Your task to perform on an android device: Set the phone to "Do not disturb". Image 0: 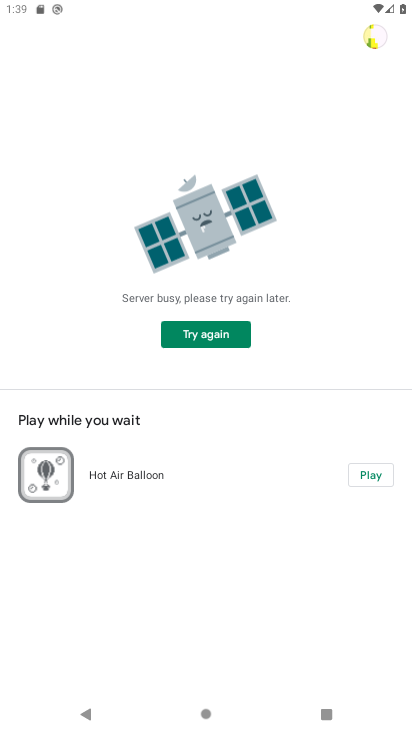
Step 0: press home button
Your task to perform on an android device: Set the phone to "Do not disturb". Image 1: 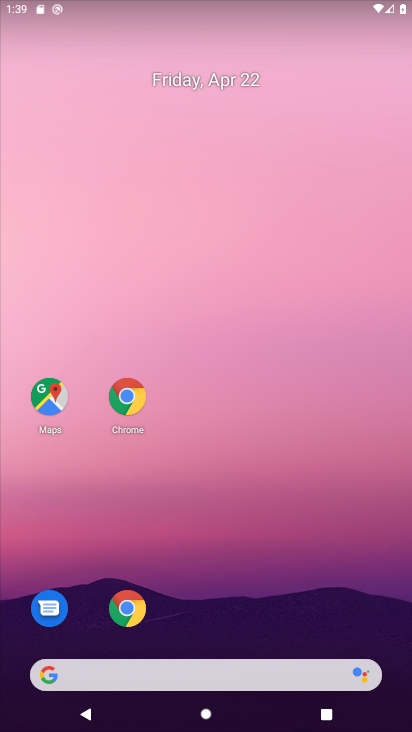
Step 1: drag from (136, 110) to (110, 0)
Your task to perform on an android device: Set the phone to "Do not disturb". Image 2: 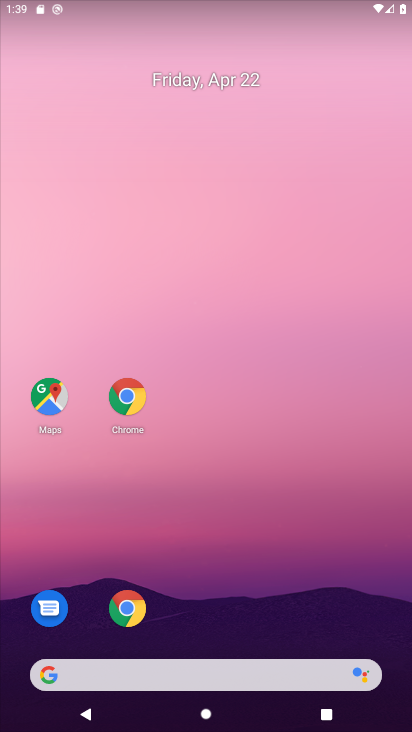
Step 2: drag from (283, 677) to (185, 20)
Your task to perform on an android device: Set the phone to "Do not disturb". Image 3: 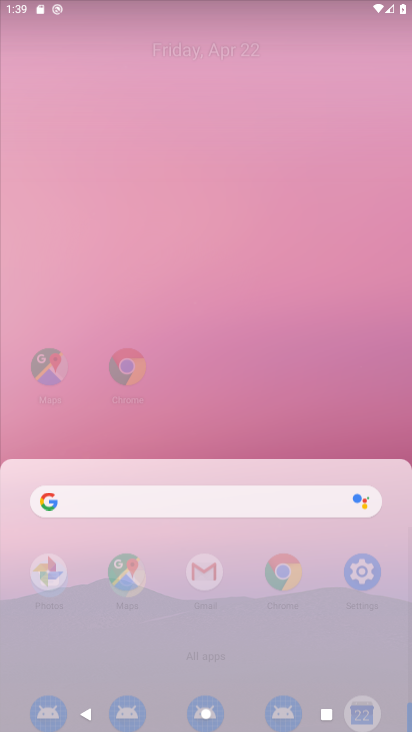
Step 3: drag from (241, 572) to (266, 225)
Your task to perform on an android device: Set the phone to "Do not disturb". Image 4: 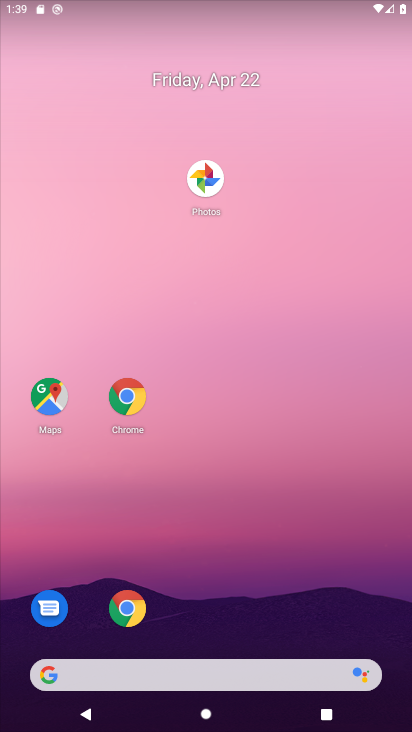
Step 4: drag from (279, 601) to (175, 177)
Your task to perform on an android device: Set the phone to "Do not disturb". Image 5: 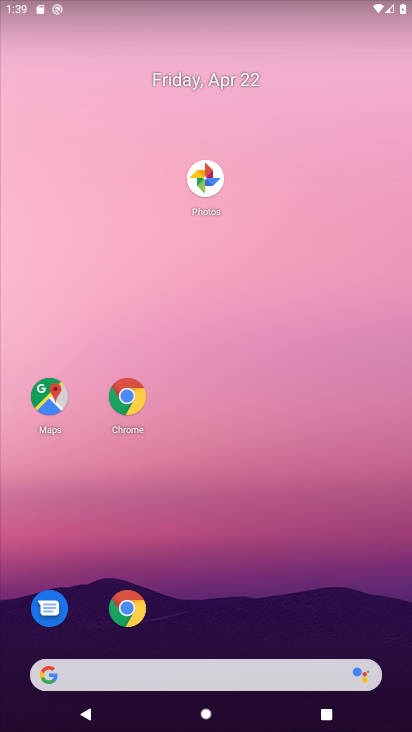
Step 5: drag from (243, 580) to (123, 203)
Your task to perform on an android device: Set the phone to "Do not disturb". Image 6: 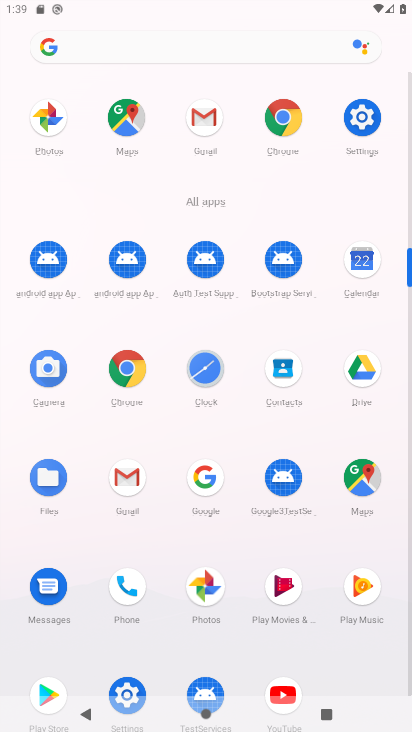
Step 6: drag from (235, 477) to (127, 100)
Your task to perform on an android device: Set the phone to "Do not disturb". Image 7: 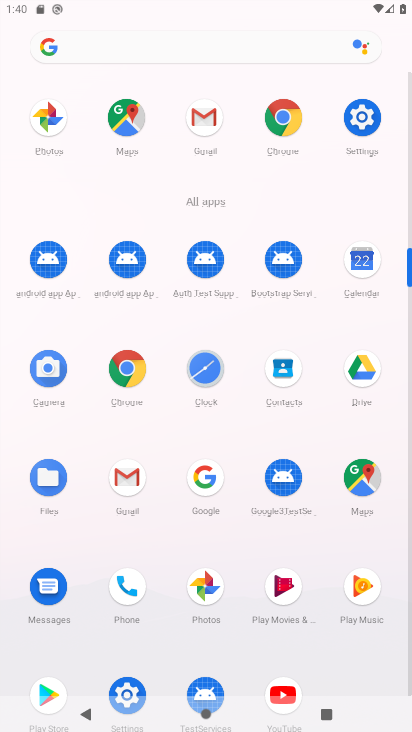
Step 7: click (358, 133)
Your task to perform on an android device: Set the phone to "Do not disturb". Image 8: 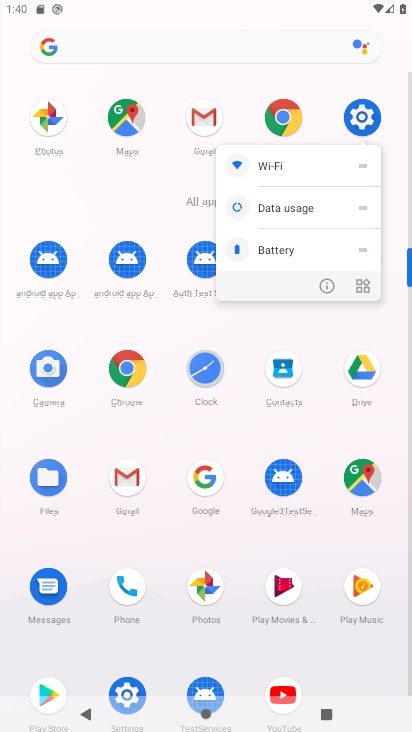
Step 8: click (228, 313)
Your task to perform on an android device: Set the phone to "Do not disturb". Image 9: 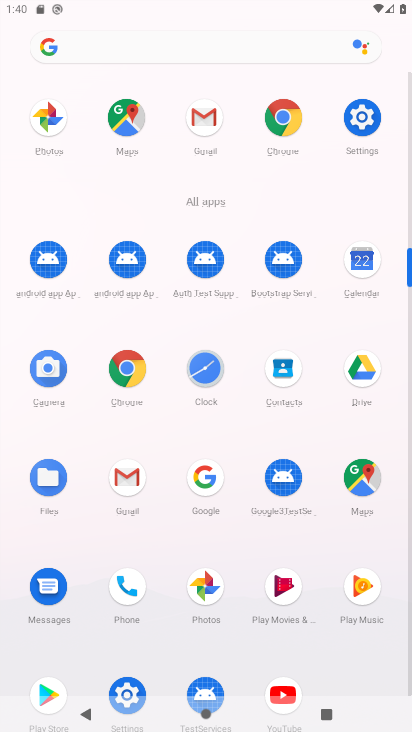
Step 9: click (352, 110)
Your task to perform on an android device: Set the phone to "Do not disturb". Image 10: 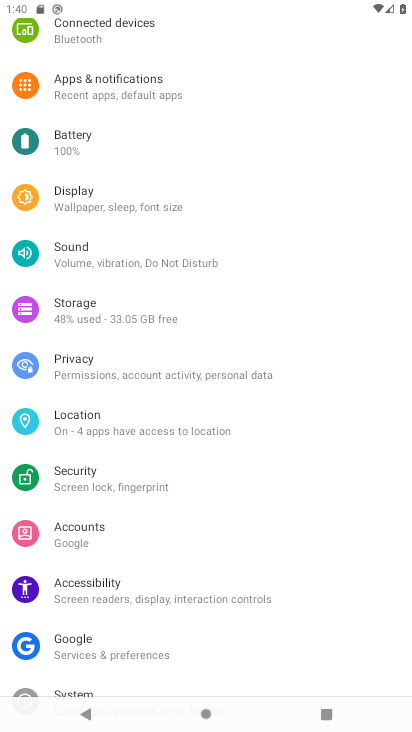
Step 10: click (80, 204)
Your task to perform on an android device: Set the phone to "Do not disturb". Image 11: 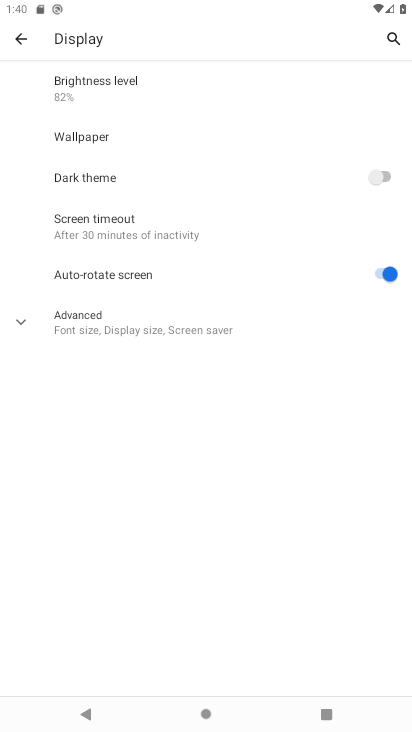
Step 11: click (19, 38)
Your task to perform on an android device: Set the phone to "Do not disturb". Image 12: 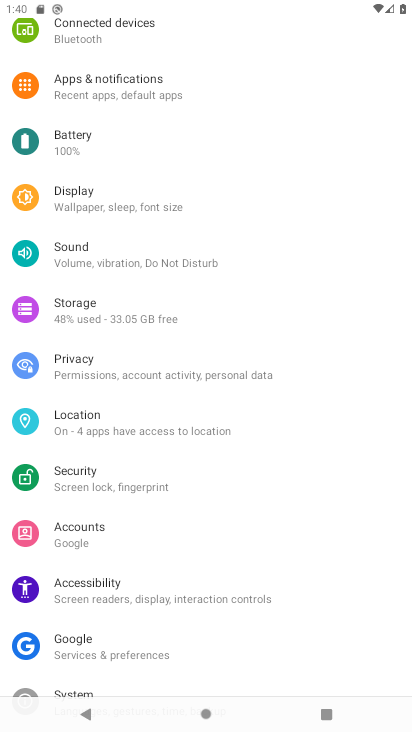
Step 12: click (90, 249)
Your task to perform on an android device: Set the phone to "Do not disturb". Image 13: 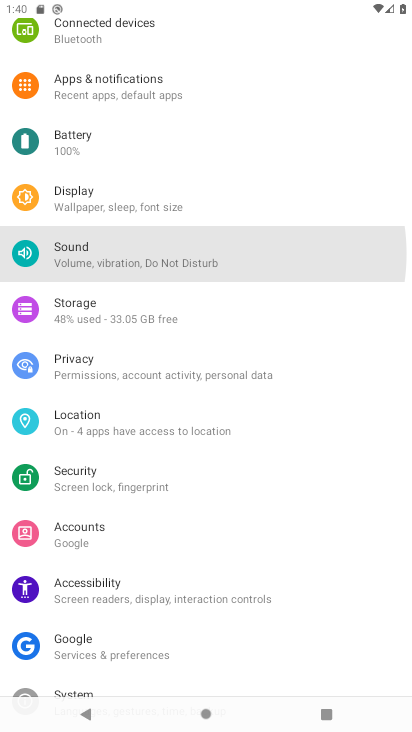
Step 13: click (89, 248)
Your task to perform on an android device: Set the phone to "Do not disturb". Image 14: 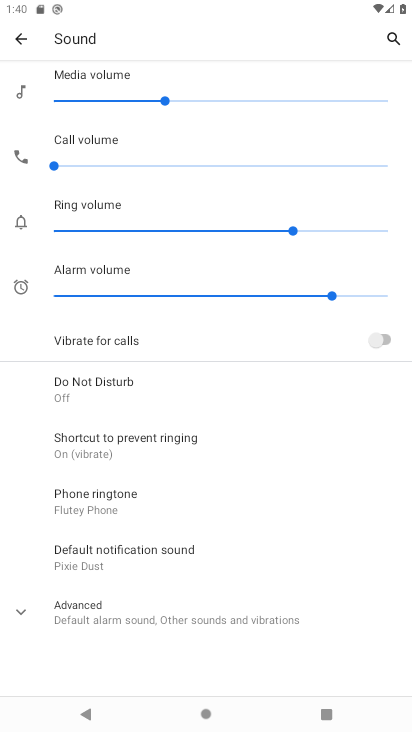
Step 14: drag from (73, 428) to (117, 115)
Your task to perform on an android device: Set the phone to "Do not disturb". Image 15: 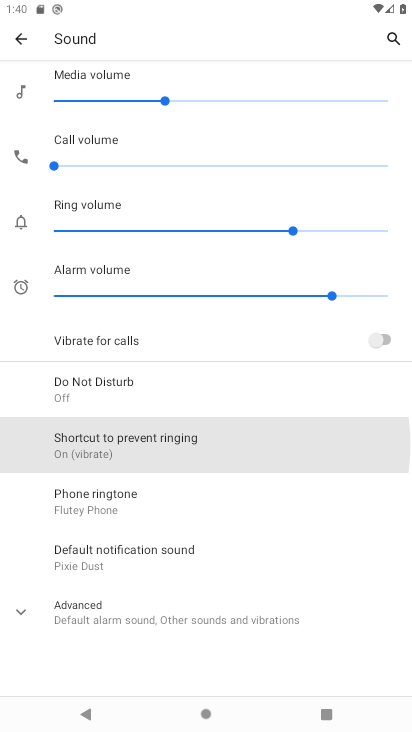
Step 15: drag from (138, 436) to (169, 111)
Your task to perform on an android device: Set the phone to "Do not disturb". Image 16: 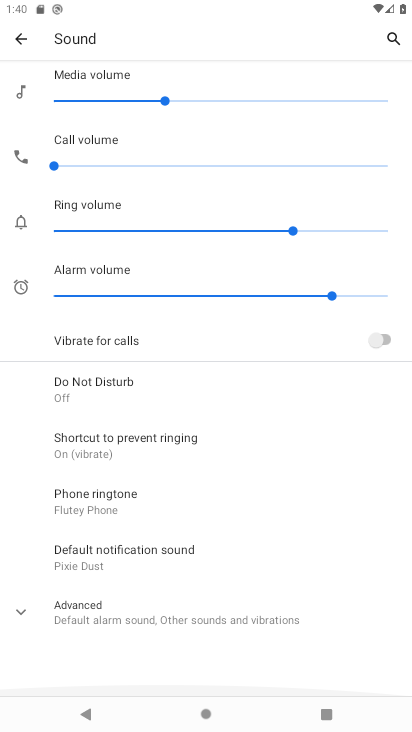
Step 16: click (98, 206)
Your task to perform on an android device: Set the phone to "Do not disturb". Image 17: 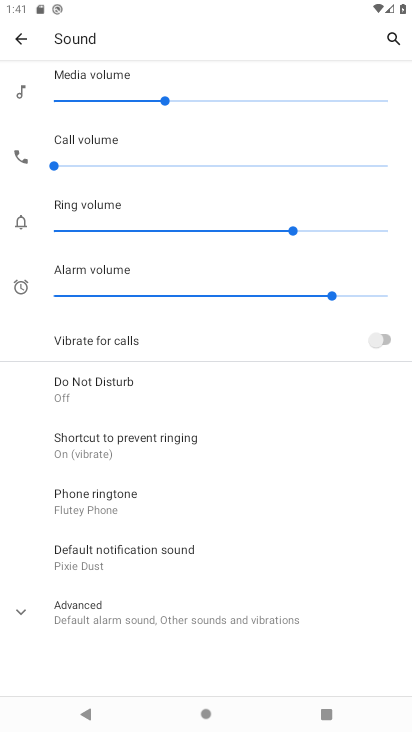
Step 17: task complete